Your task to perform on an android device: delete browsing data in the chrome app Image 0: 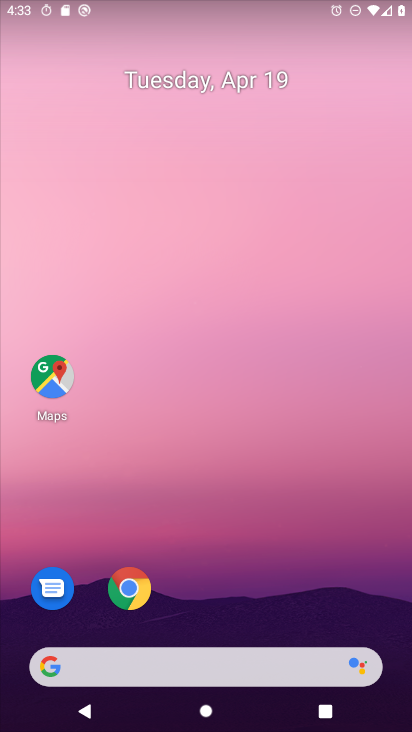
Step 0: click (138, 594)
Your task to perform on an android device: delete browsing data in the chrome app Image 1: 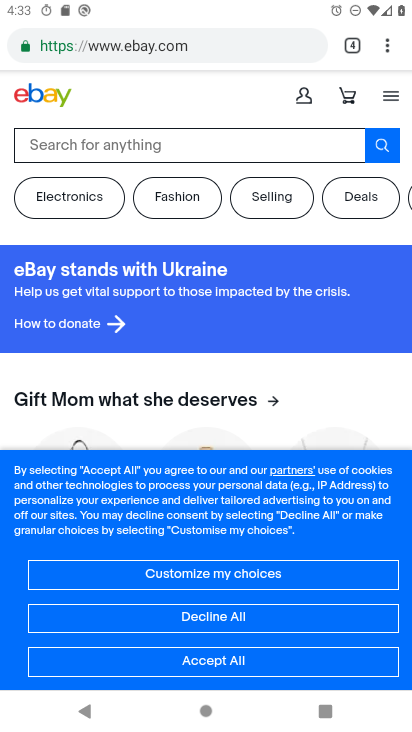
Step 1: click (385, 43)
Your task to perform on an android device: delete browsing data in the chrome app Image 2: 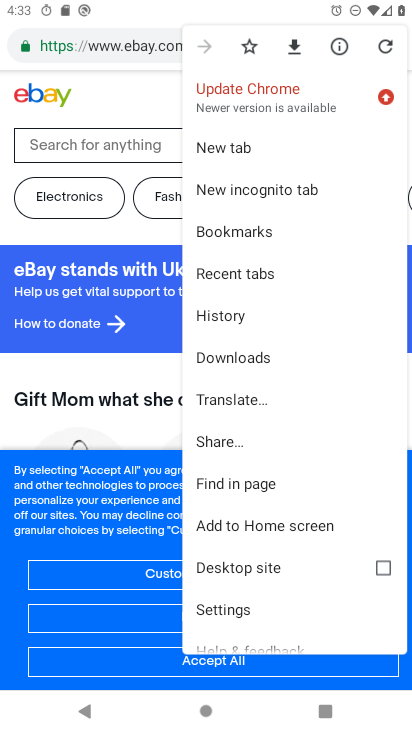
Step 2: click (245, 312)
Your task to perform on an android device: delete browsing data in the chrome app Image 3: 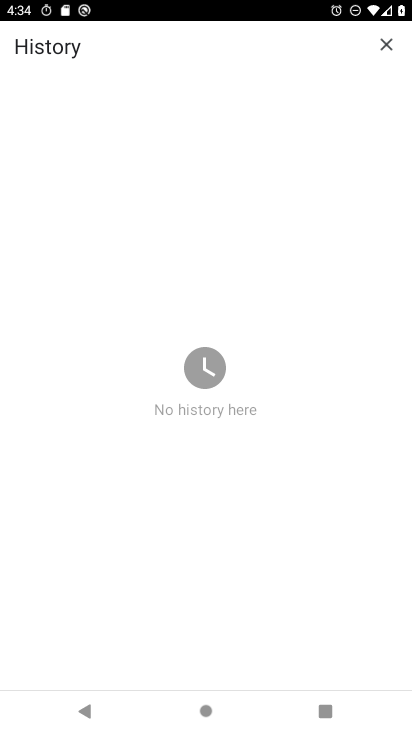
Step 3: task complete